Your task to perform on an android device: What's on my calendar today? Image 0: 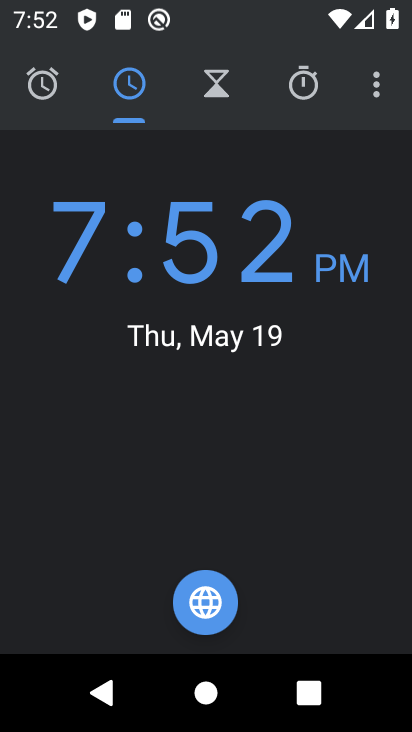
Step 0: press back button
Your task to perform on an android device: What's on my calendar today? Image 1: 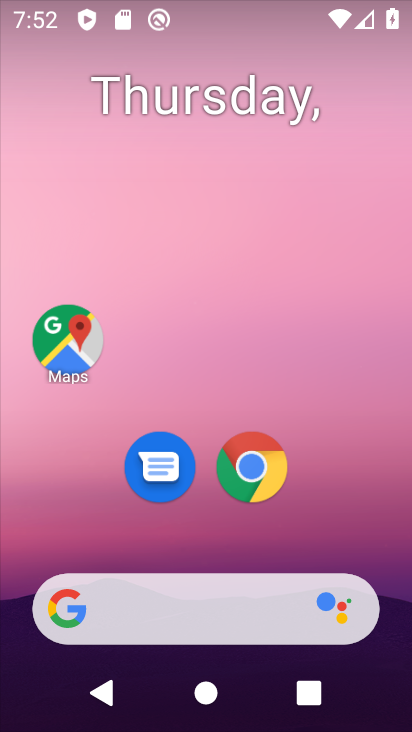
Step 1: drag from (147, 522) to (293, 34)
Your task to perform on an android device: What's on my calendar today? Image 2: 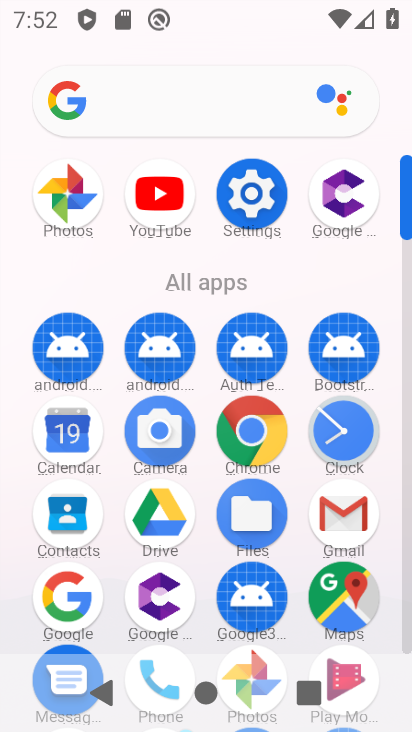
Step 2: click (81, 433)
Your task to perform on an android device: What's on my calendar today? Image 3: 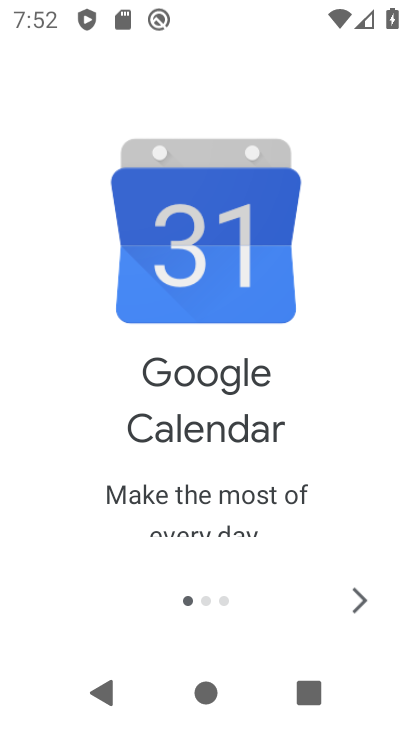
Step 3: click (343, 588)
Your task to perform on an android device: What's on my calendar today? Image 4: 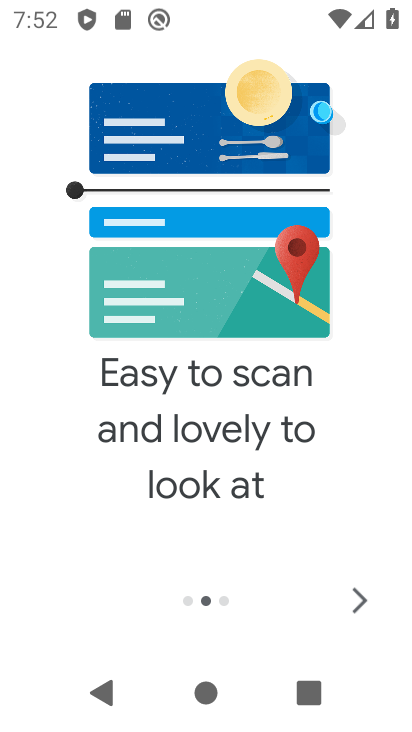
Step 4: click (346, 584)
Your task to perform on an android device: What's on my calendar today? Image 5: 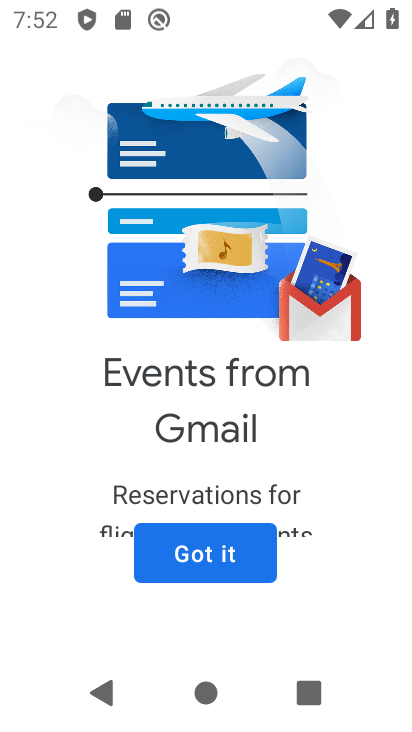
Step 5: click (132, 558)
Your task to perform on an android device: What's on my calendar today? Image 6: 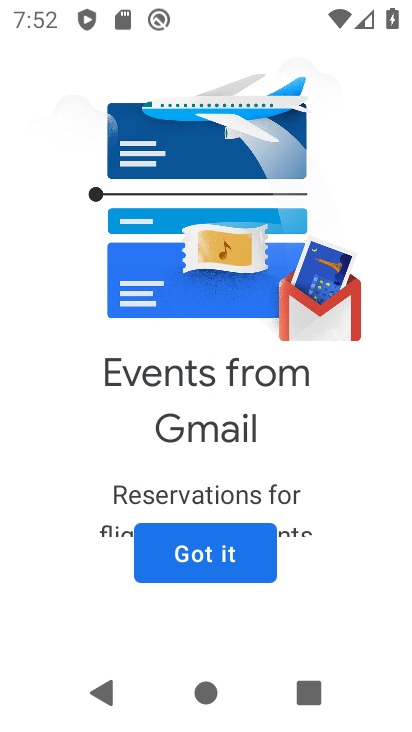
Step 6: click (219, 579)
Your task to perform on an android device: What's on my calendar today? Image 7: 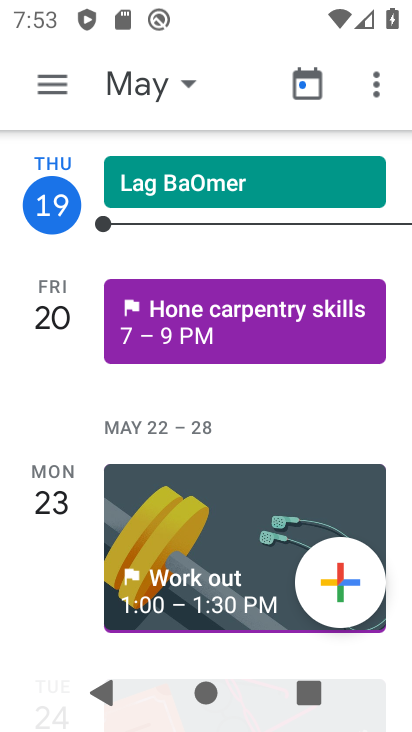
Step 7: click (219, 327)
Your task to perform on an android device: What's on my calendar today? Image 8: 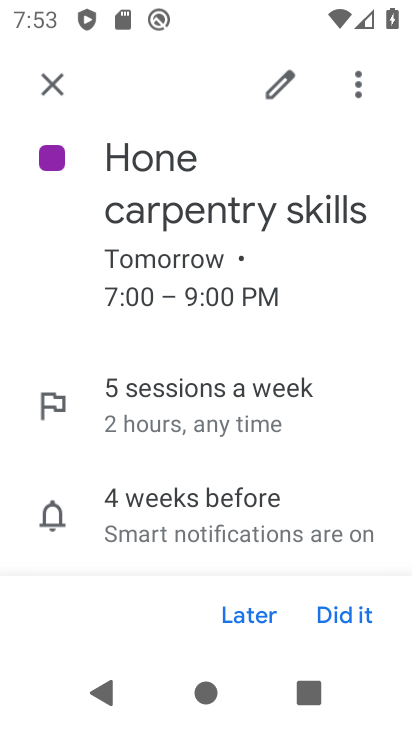
Step 8: task complete